Your task to perform on an android device: Open the web browser Image 0: 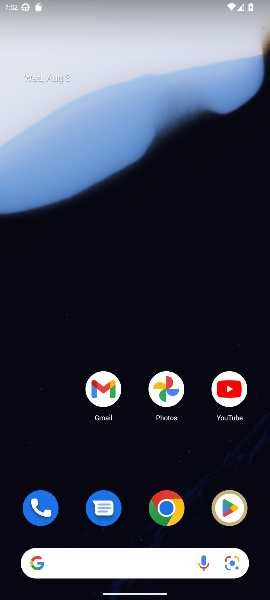
Step 0: click (119, 561)
Your task to perform on an android device: Open the web browser Image 1: 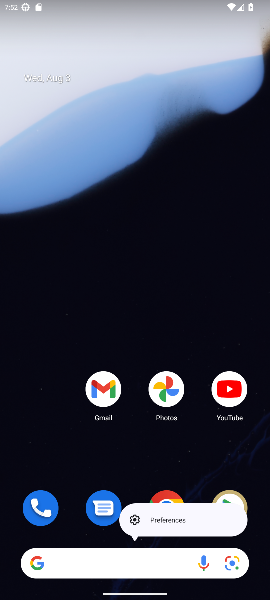
Step 1: click (119, 559)
Your task to perform on an android device: Open the web browser Image 2: 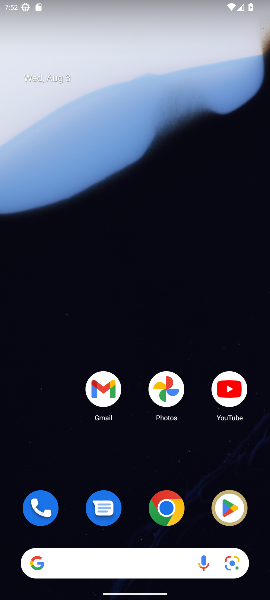
Step 2: click (137, 548)
Your task to perform on an android device: Open the web browser Image 3: 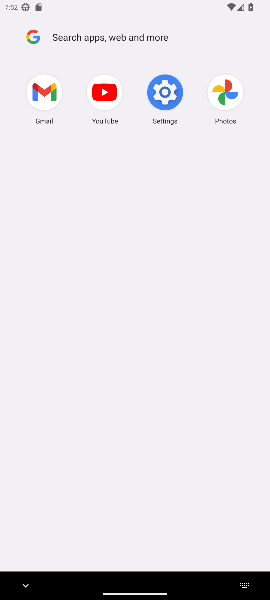
Step 3: task complete